Your task to perform on an android device: Is it going to rain today? Image 0: 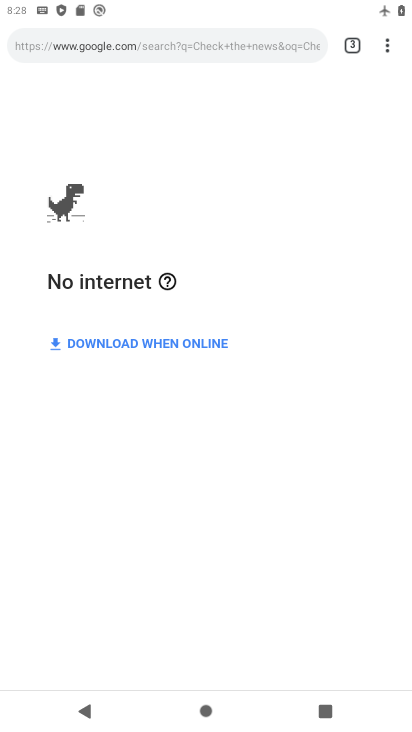
Step 0: press home button
Your task to perform on an android device: Is it going to rain today? Image 1: 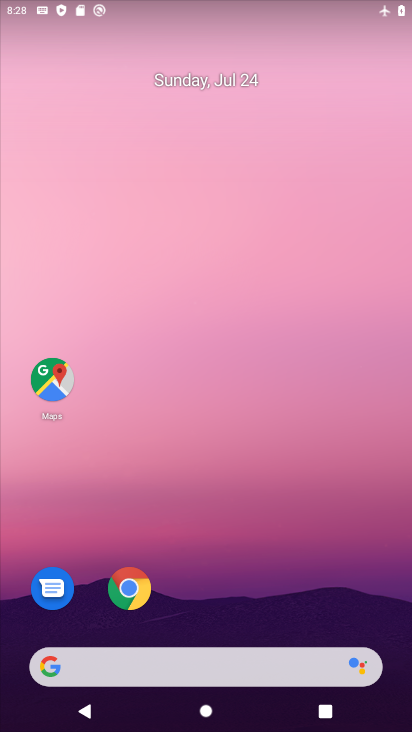
Step 1: click (119, 576)
Your task to perform on an android device: Is it going to rain today? Image 2: 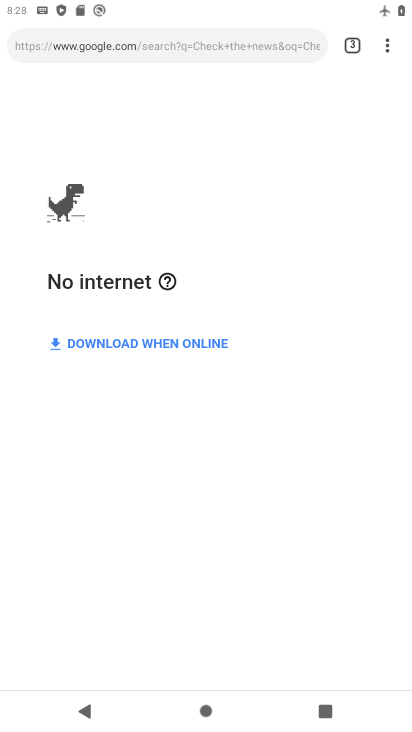
Step 2: click (388, 40)
Your task to perform on an android device: Is it going to rain today? Image 3: 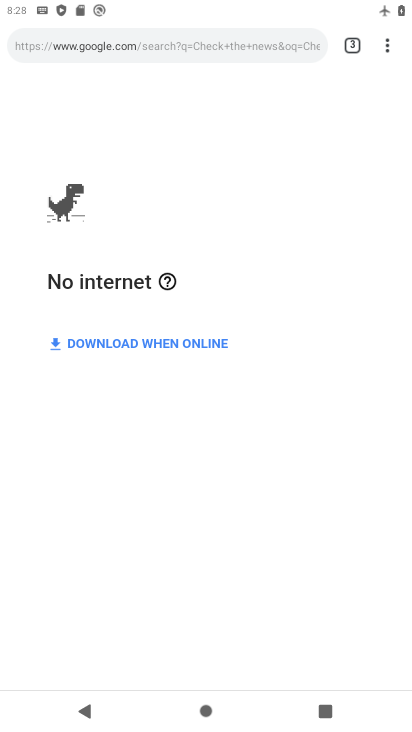
Step 3: click (388, 40)
Your task to perform on an android device: Is it going to rain today? Image 4: 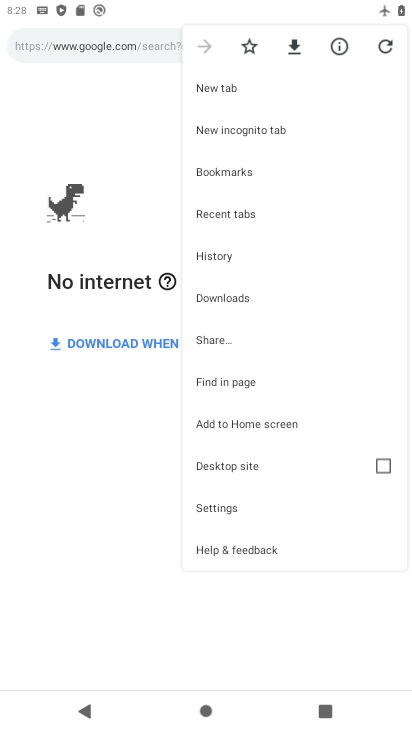
Step 4: click (214, 89)
Your task to perform on an android device: Is it going to rain today? Image 5: 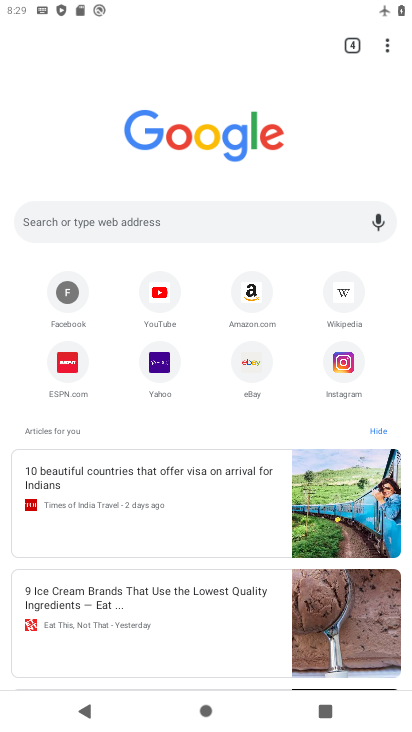
Step 5: click (176, 209)
Your task to perform on an android device: Is it going to rain today? Image 6: 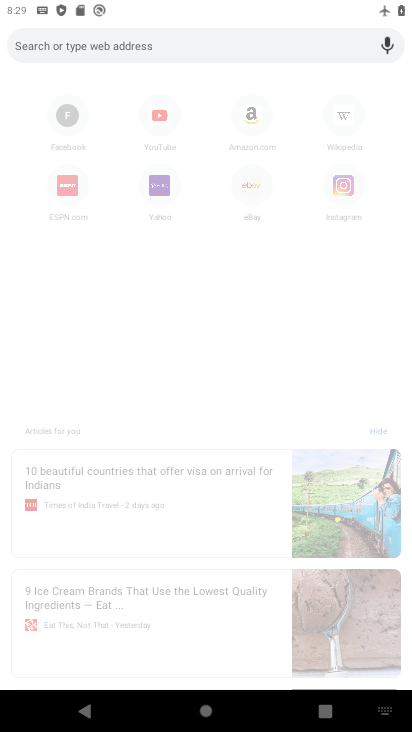
Step 6: type "Is it going to rain today? "
Your task to perform on an android device: Is it going to rain today? Image 7: 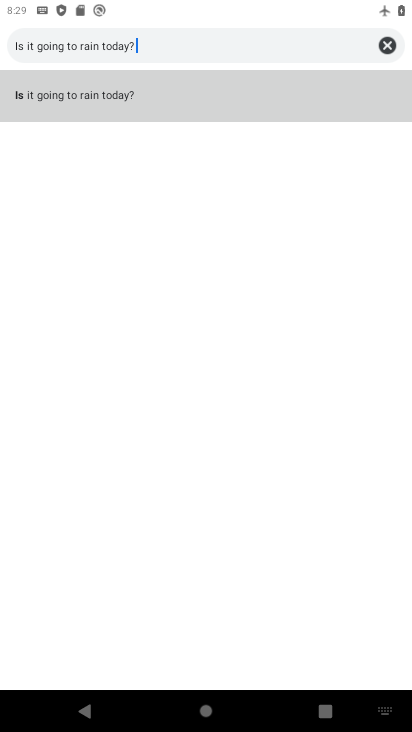
Step 7: click (154, 97)
Your task to perform on an android device: Is it going to rain today? Image 8: 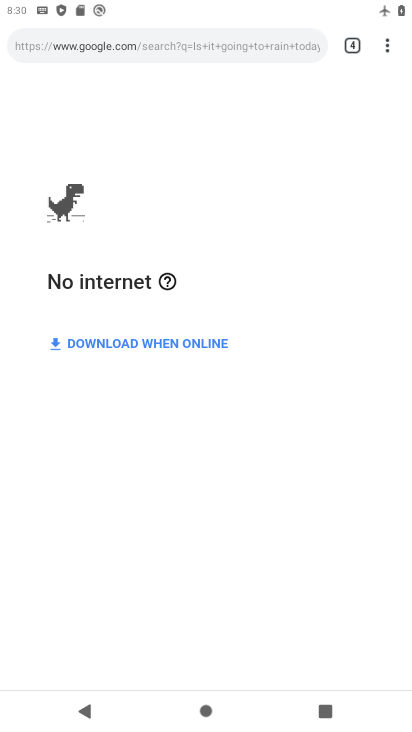
Step 8: click (393, 46)
Your task to perform on an android device: Is it going to rain today? Image 9: 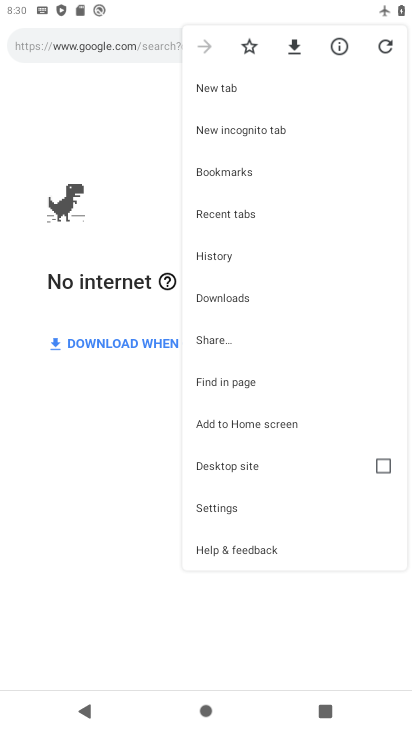
Step 9: click (234, 86)
Your task to perform on an android device: Is it going to rain today? Image 10: 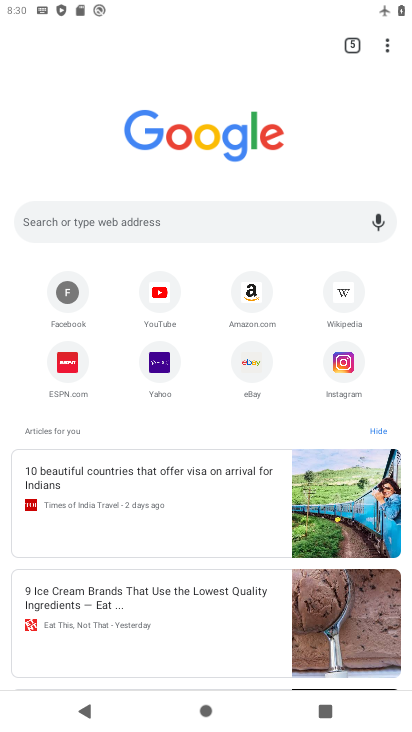
Step 10: click (129, 203)
Your task to perform on an android device: Is it going to rain today? Image 11: 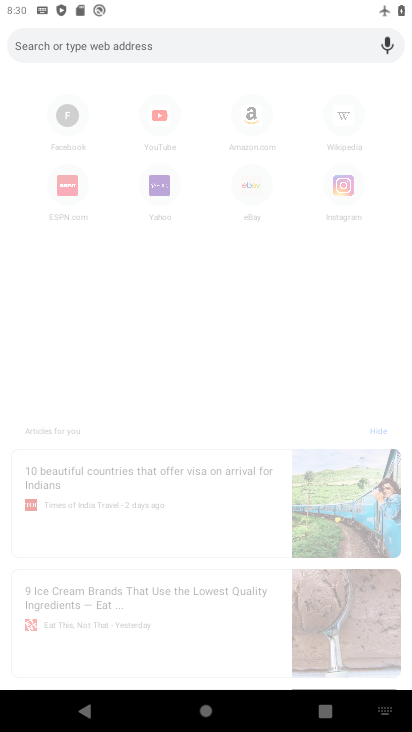
Step 11: type "Is it going to rain today "
Your task to perform on an android device: Is it going to rain today? Image 12: 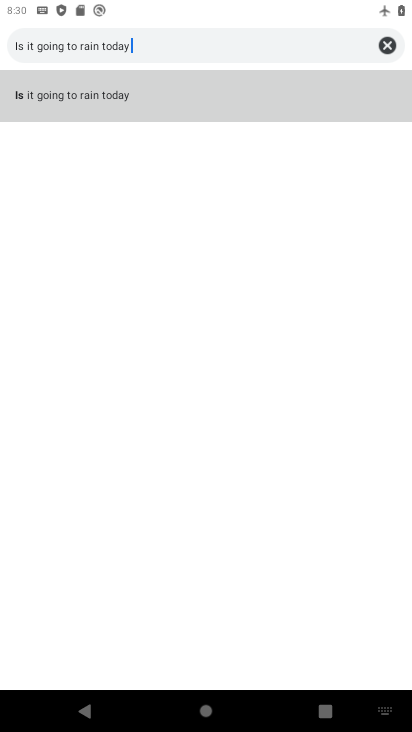
Step 12: click (230, 112)
Your task to perform on an android device: Is it going to rain today? Image 13: 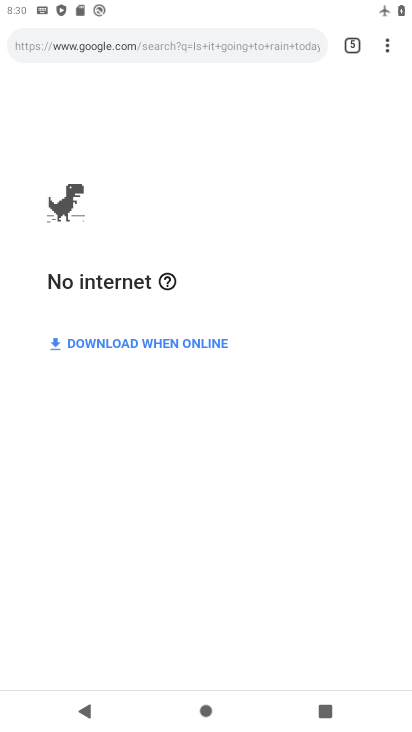
Step 13: task complete